Your task to perform on an android device: Show me recent news Image 0: 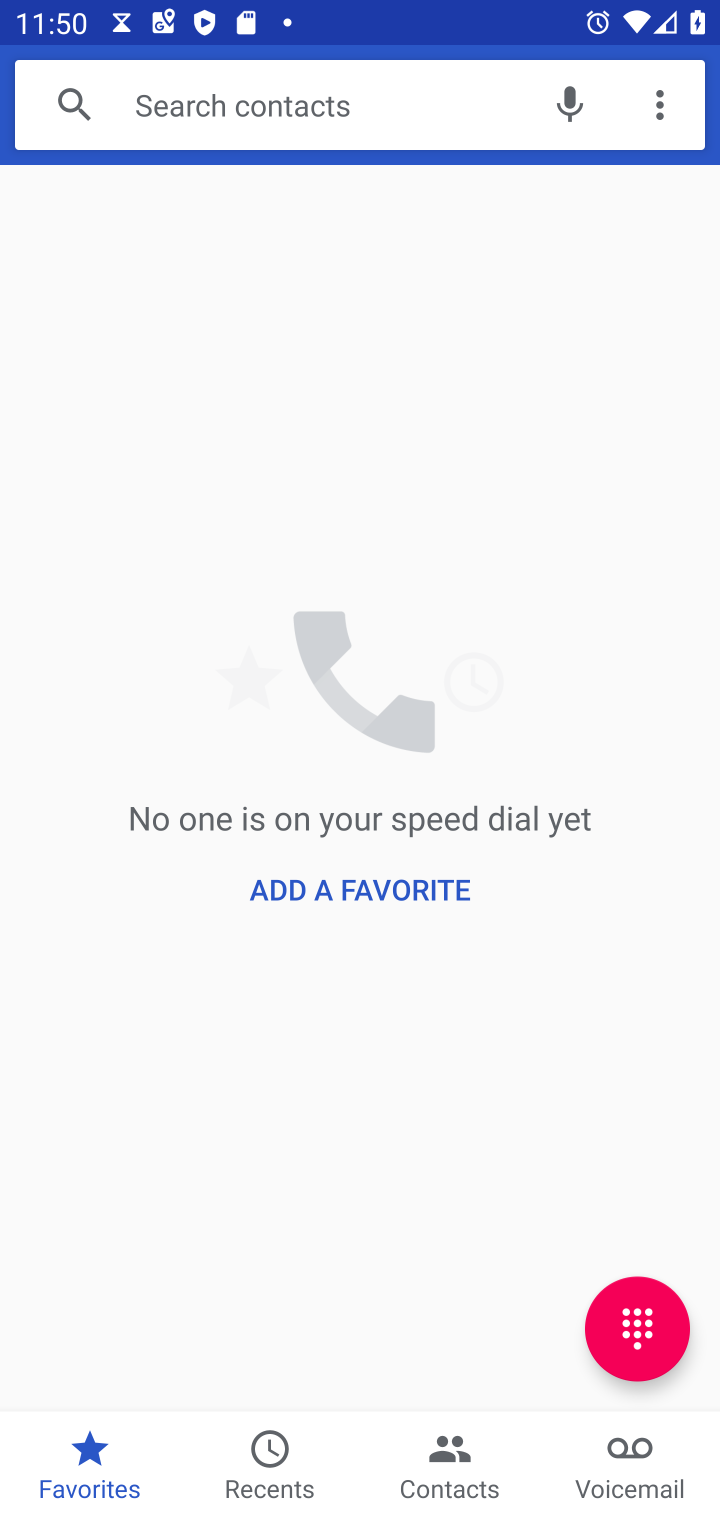
Step 0: press home button
Your task to perform on an android device: Show me recent news Image 1: 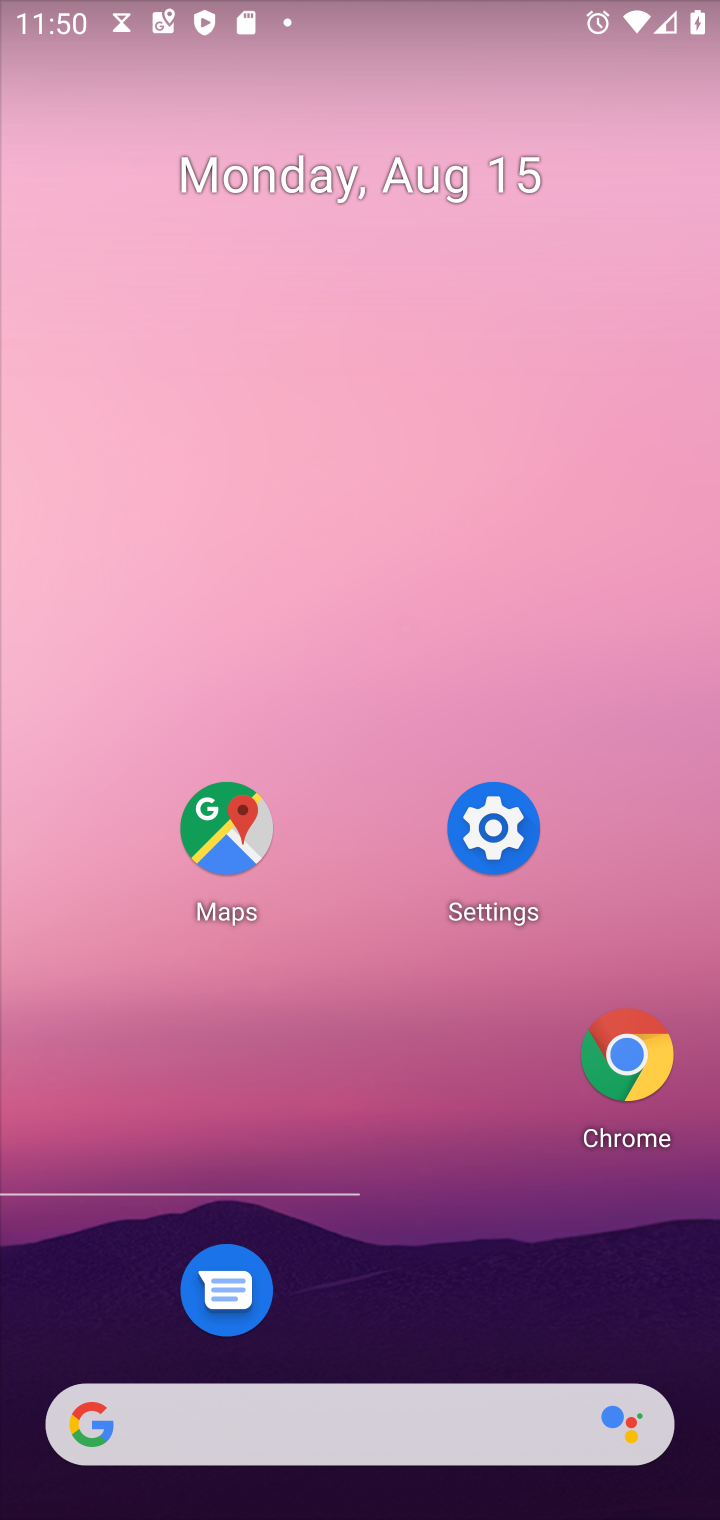
Step 1: click (300, 1418)
Your task to perform on an android device: Show me recent news Image 2: 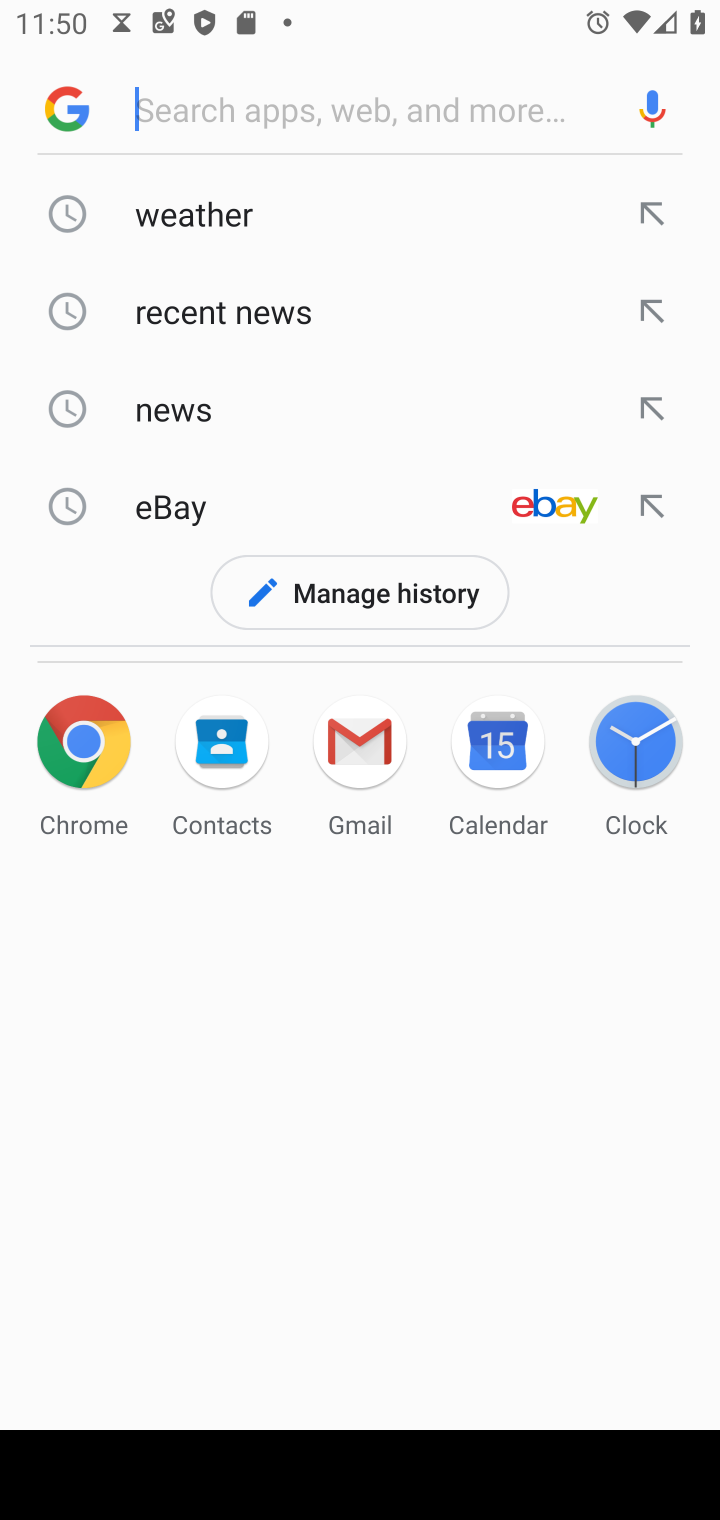
Step 2: click (304, 310)
Your task to perform on an android device: Show me recent news Image 3: 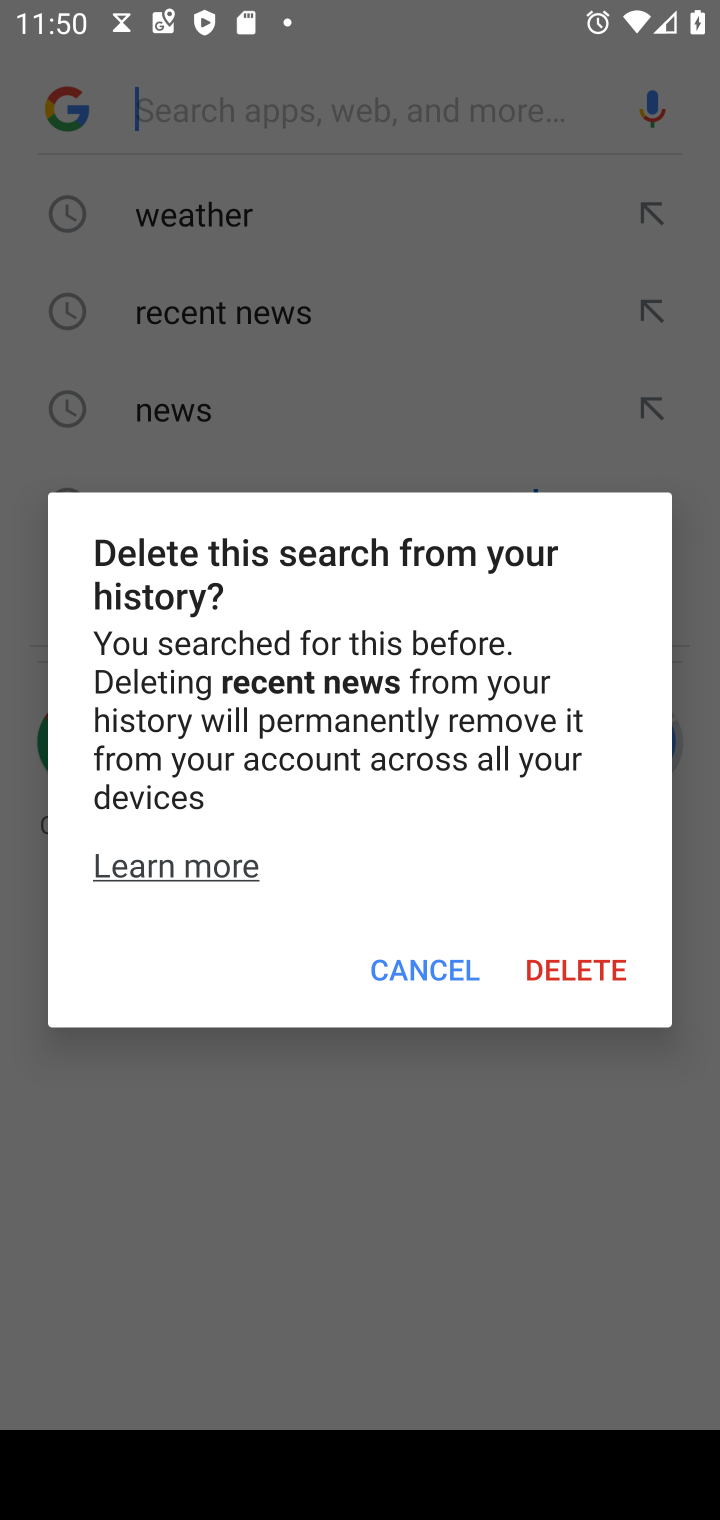
Step 3: click (421, 996)
Your task to perform on an android device: Show me recent news Image 4: 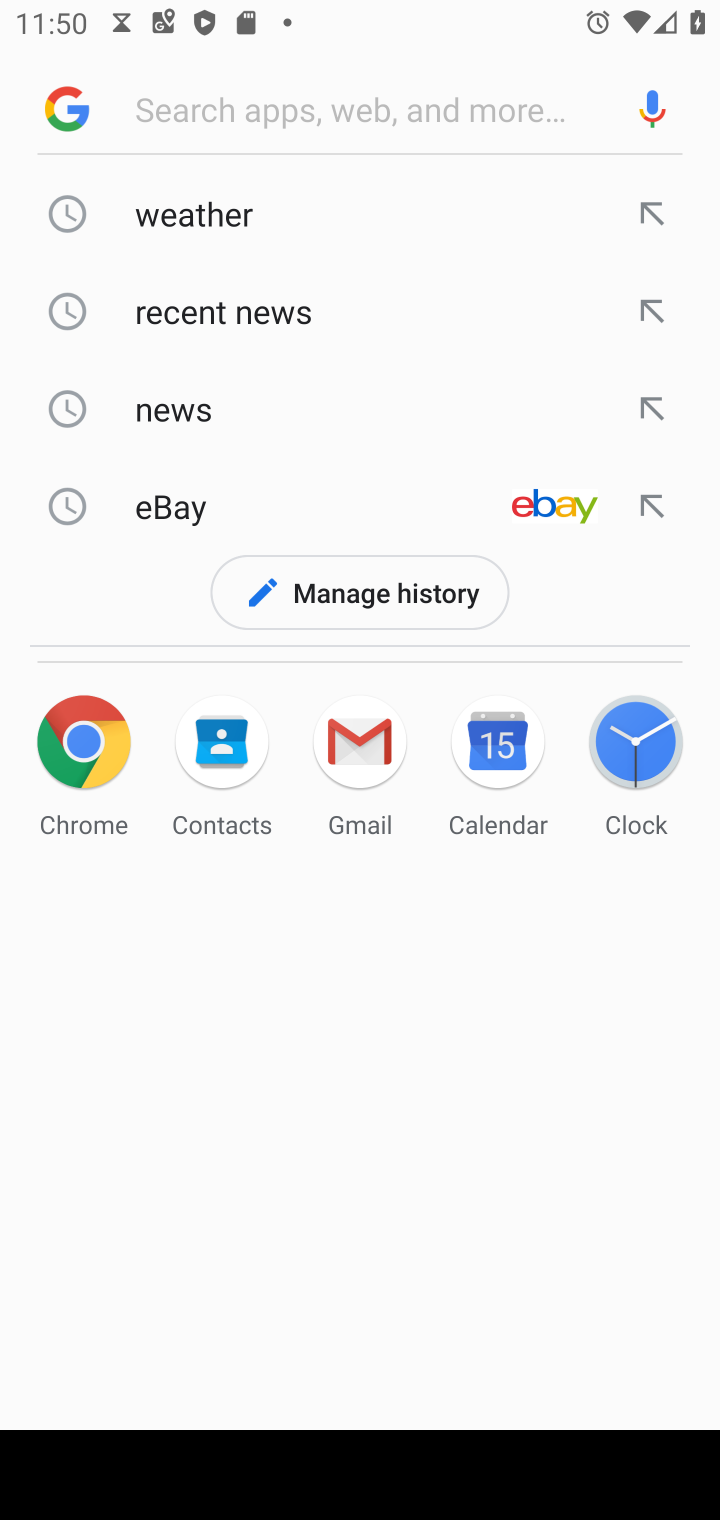
Step 4: click (155, 305)
Your task to perform on an android device: Show me recent news Image 5: 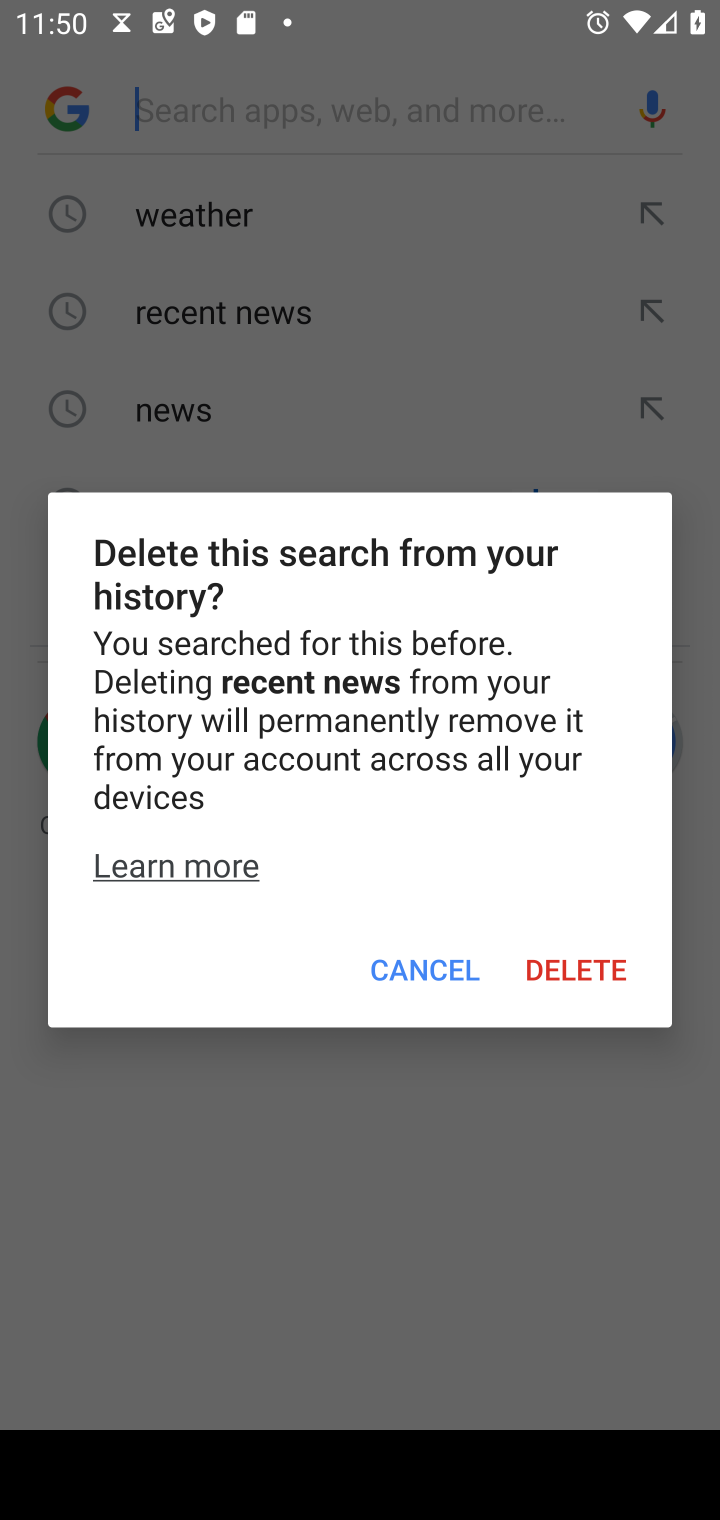
Step 5: click (416, 980)
Your task to perform on an android device: Show me recent news Image 6: 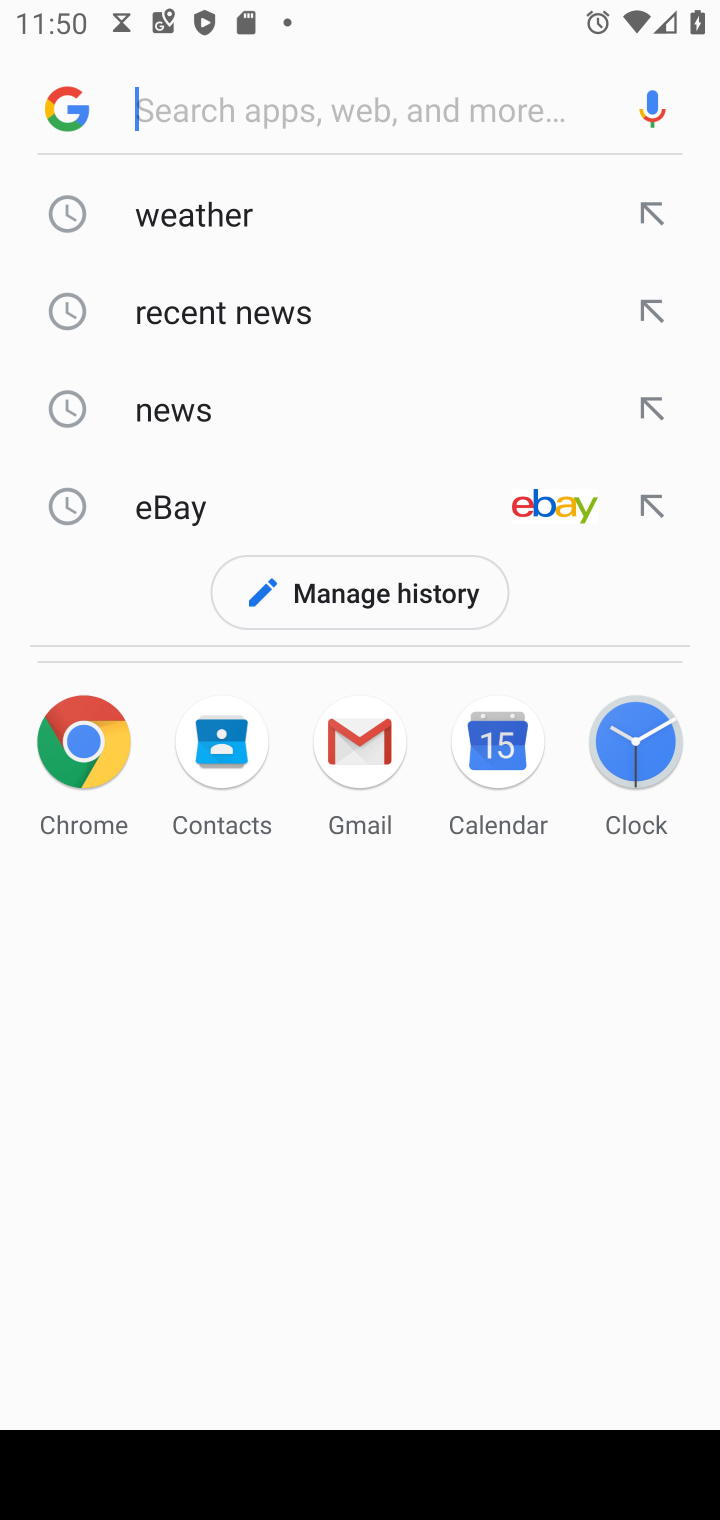
Step 6: click (640, 307)
Your task to perform on an android device: Show me recent news Image 7: 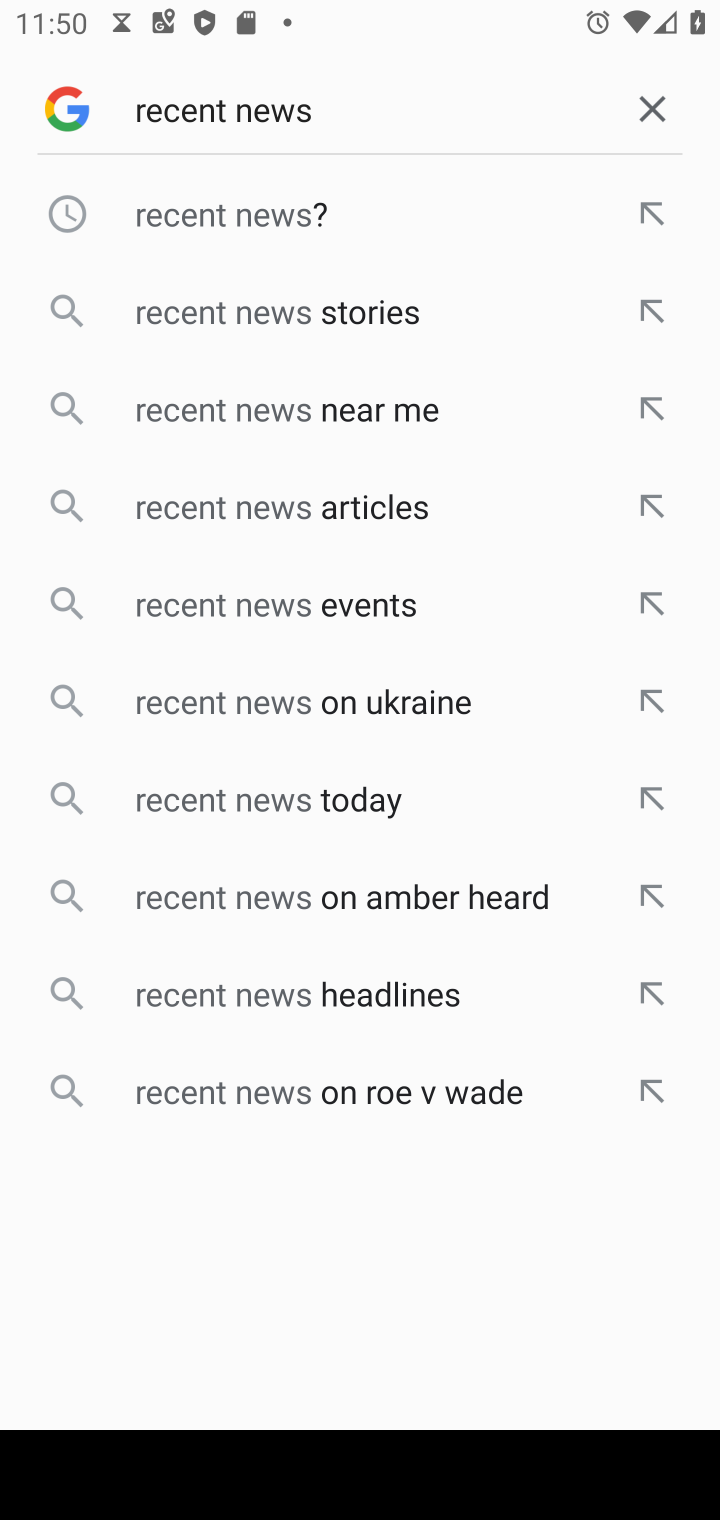
Step 7: click (331, 204)
Your task to perform on an android device: Show me recent news Image 8: 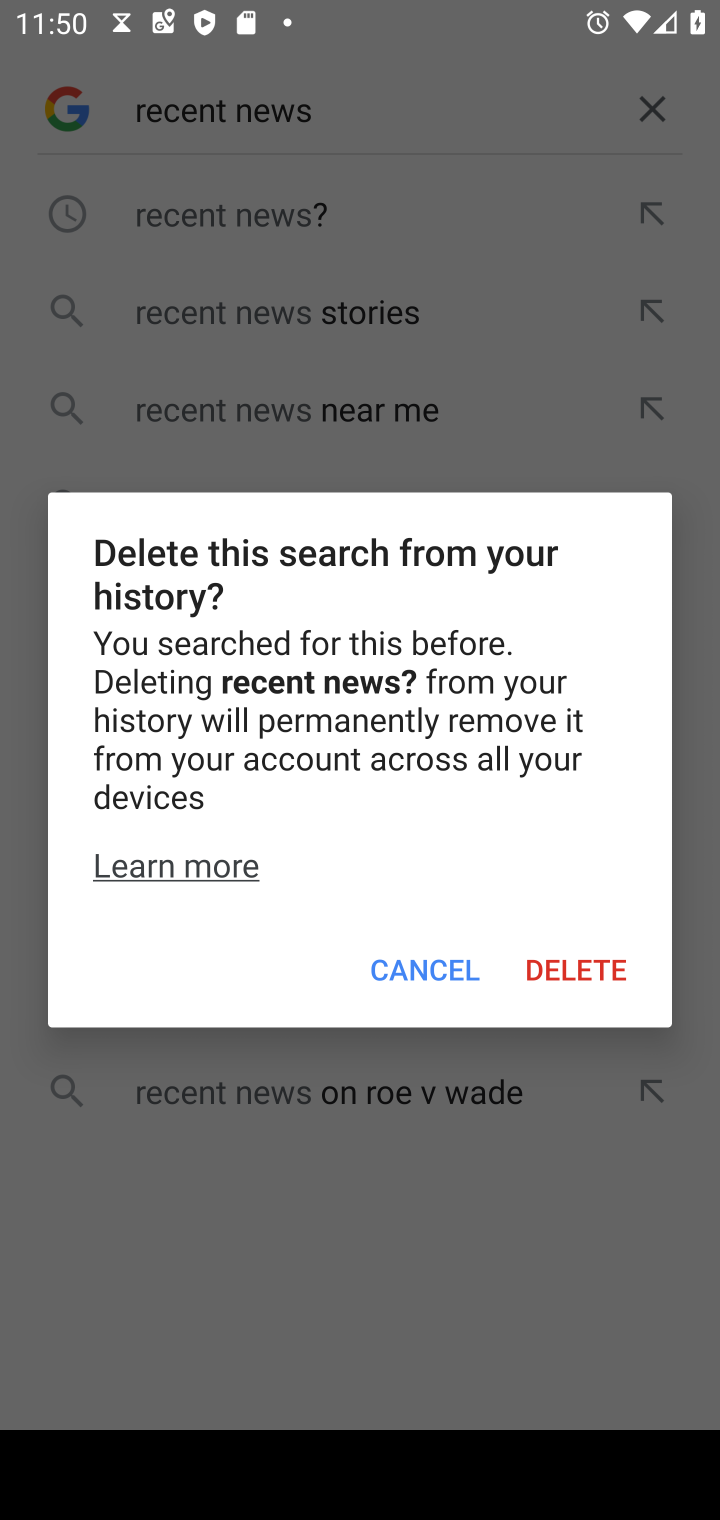
Step 8: click (430, 979)
Your task to perform on an android device: Show me recent news Image 9: 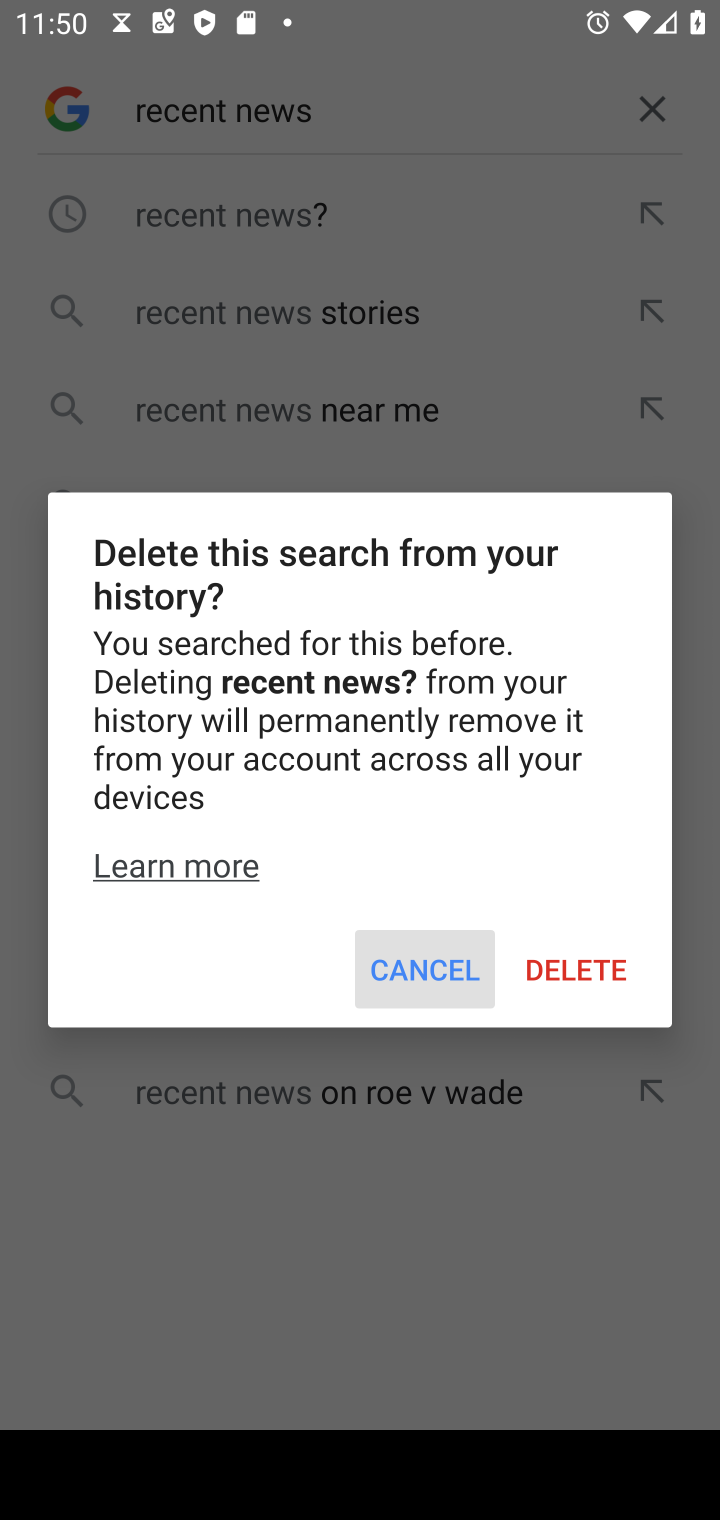
Step 9: click (157, 213)
Your task to perform on an android device: Show me recent news Image 10: 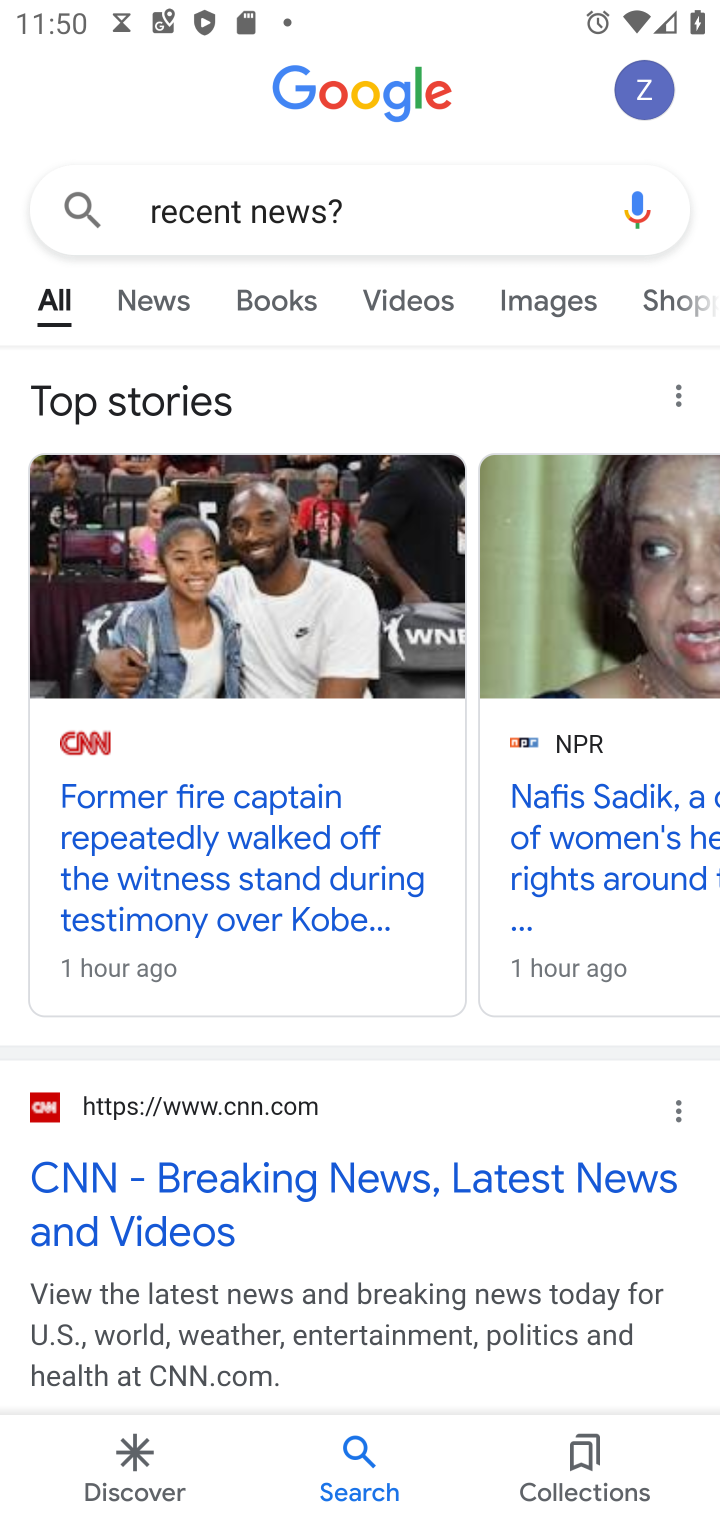
Step 10: click (141, 291)
Your task to perform on an android device: Show me recent news Image 11: 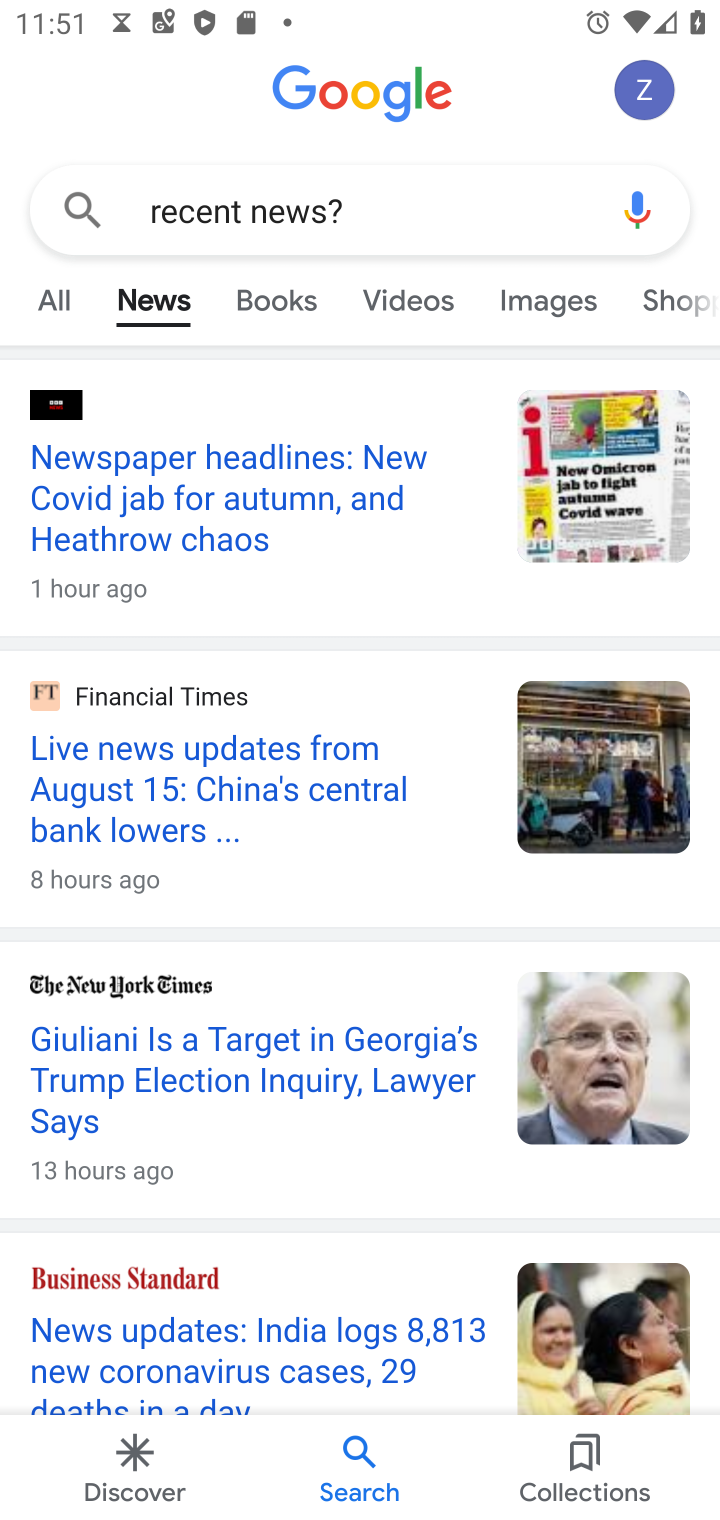
Step 11: task complete